Your task to perform on an android device: empty trash in google photos Image 0: 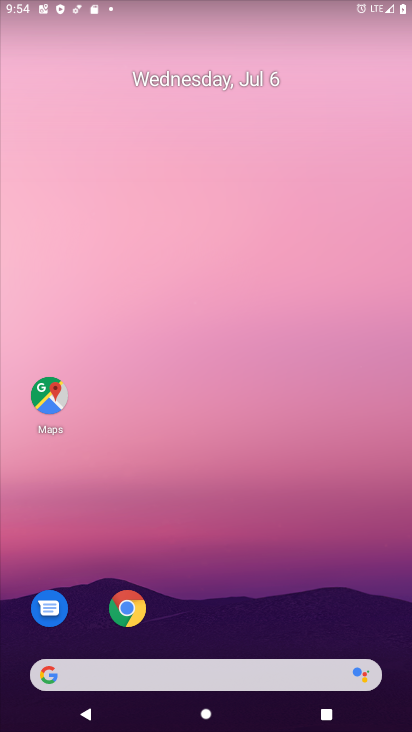
Step 0: drag from (380, 657) to (146, 47)
Your task to perform on an android device: empty trash in google photos Image 1: 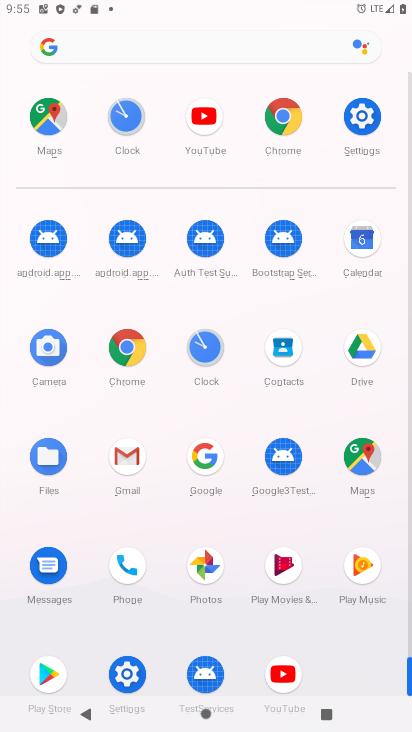
Step 1: click (209, 575)
Your task to perform on an android device: empty trash in google photos Image 2: 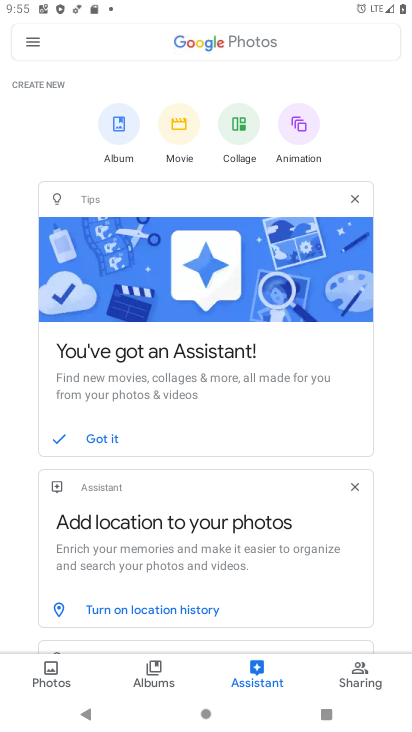
Step 2: press back button
Your task to perform on an android device: empty trash in google photos Image 3: 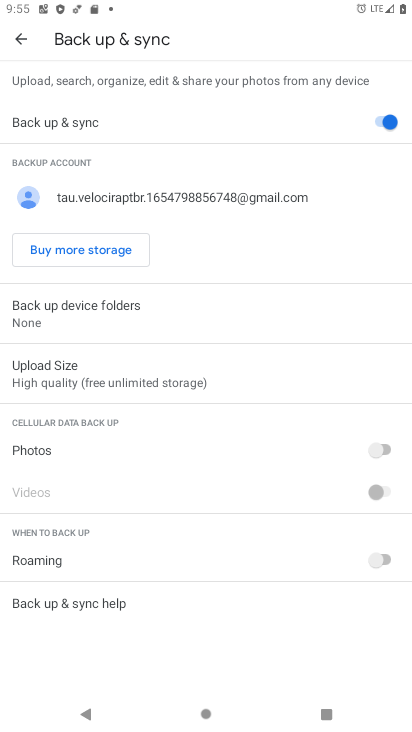
Step 3: press back button
Your task to perform on an android device: empty trash in google photos Image 4: 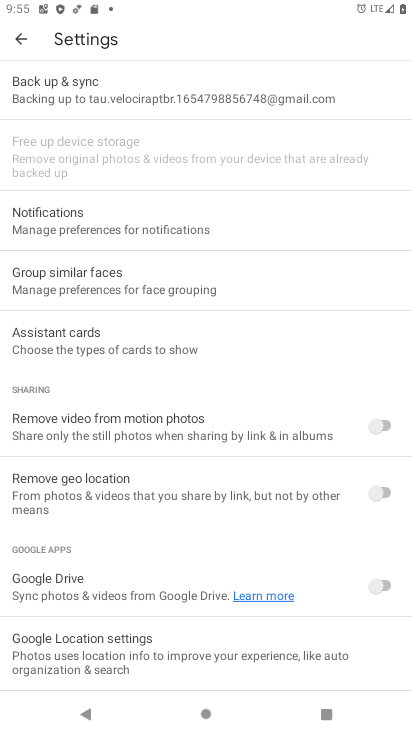
Step 4: press back button
Your task to perform on an android device: empty trash in google photos Image 5: 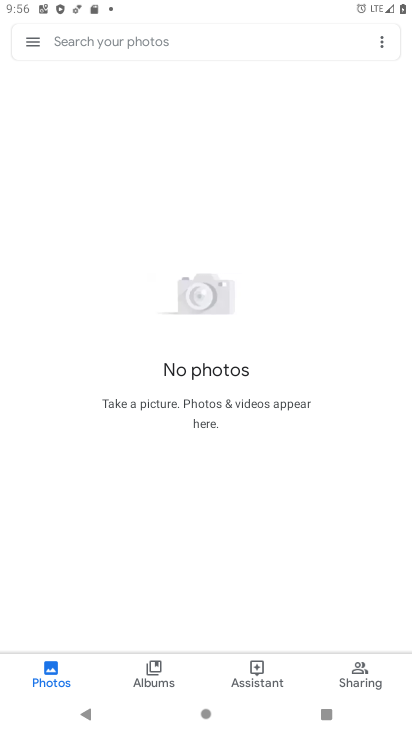
Step 5: click (33, 34)
Your task to perform on an android device: empty trash in google photos Image 6: 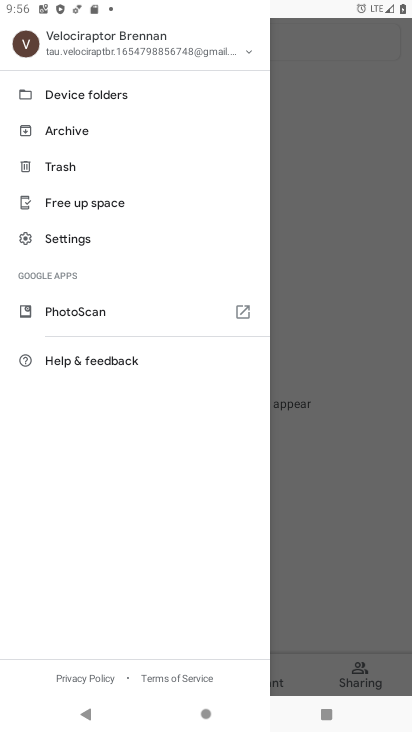
Step 6: click (68, 169)
Your task to perform on an android device: empty trash in google photos Image 7: 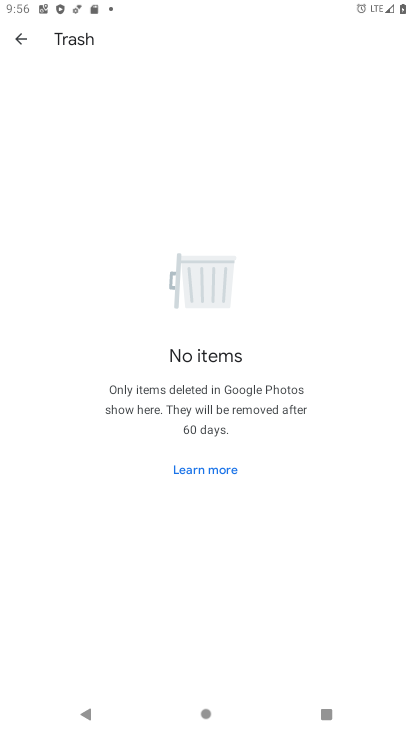
Step 7: task complete